Your task to perform on an android device: Open Yahoo.com Image 0: 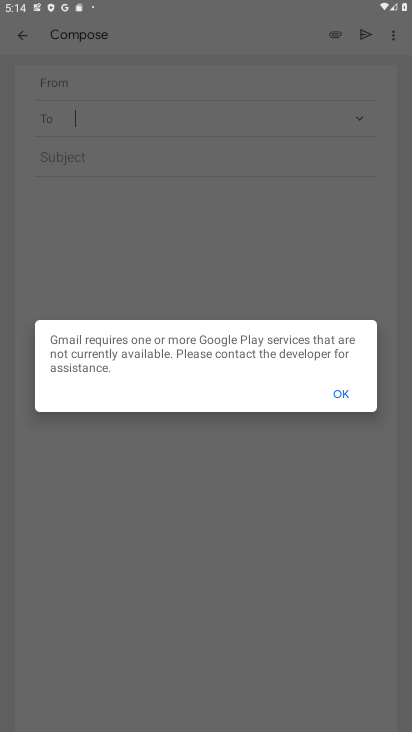
Step 0: drag from (270, 677) to (243, 279)
Your task to perform on an android device: Open Yahoo.com Image 1: 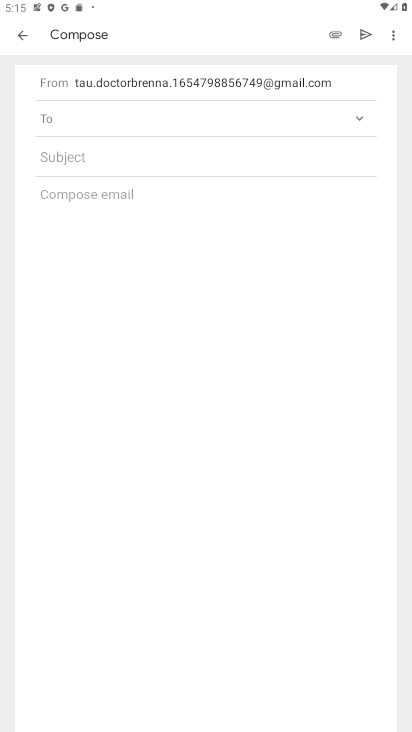
Step 1: click (341, 398)
Your task to perform on an android device: Open Yahoo.com Image 2: 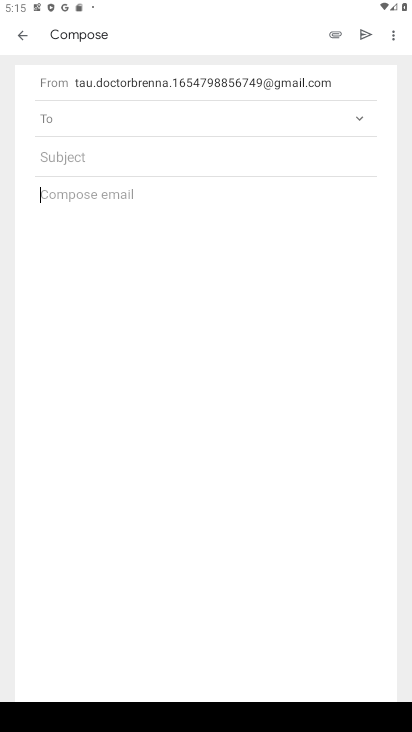
Step 2: click (20, 33)
Your task to perform on an android device: Open Yahoo.com Image 3: 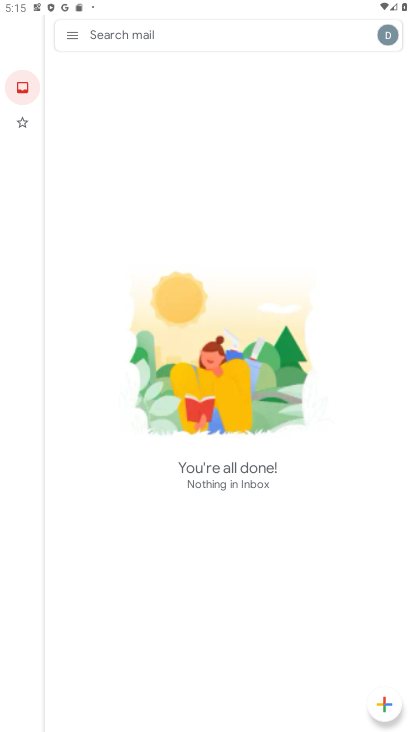
Step 3: press back button
Your task to perform on an android device: Open Yahoo.com Image 4: 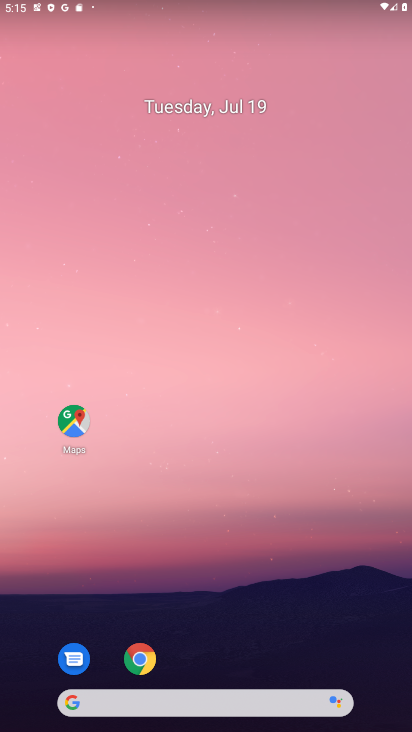
Step 4: click (78, 32)
Your task to perform on an android device: Open Yahoo.com Image 5: 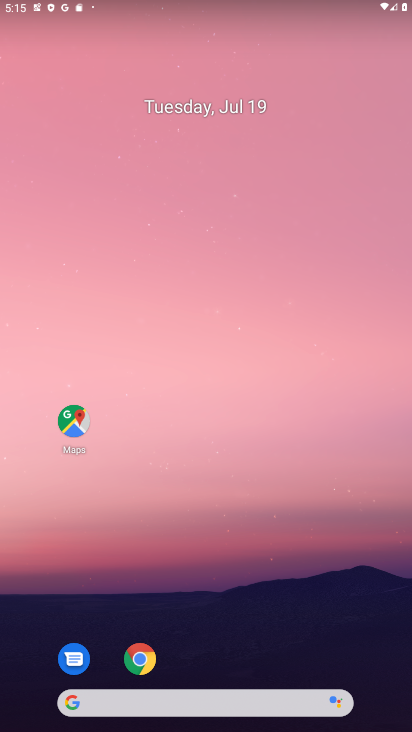
Step 5: drag from (194, 615) to (134, 68)
Your task to perform on an android device: Open Yahoo.com Image 6: 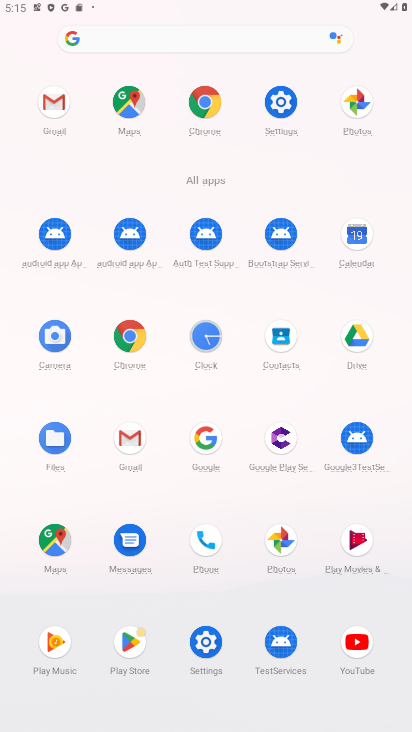
Step 6: click (190, 108)
Your task to perform on an android device: Open Yahoo.com Image 7: 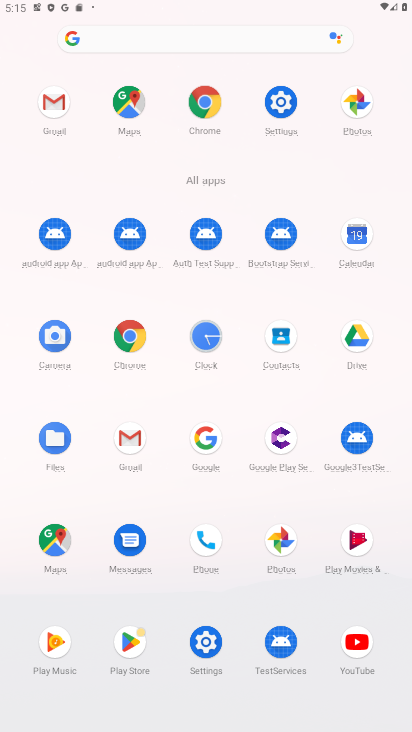
Step 7: click (200, 103)
Your task to perform on an android device: Open Yahoo.com Image 8: 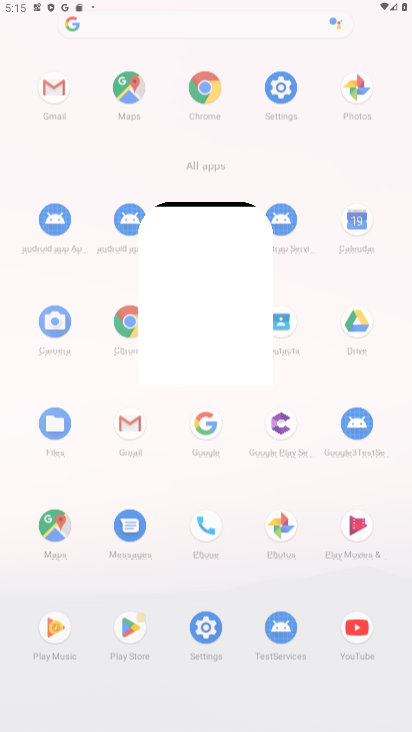
Step 8: click (201, 104)
Your task to perform on an android device: Open Yahoo.com Image 9: 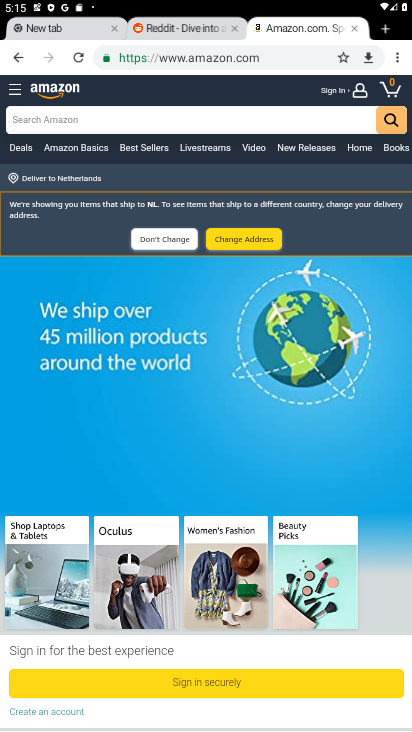
Step 9: drag from (398, 57) to (277, 64)
Your task to perform on an android device: Open Yahoo.com Image 10: 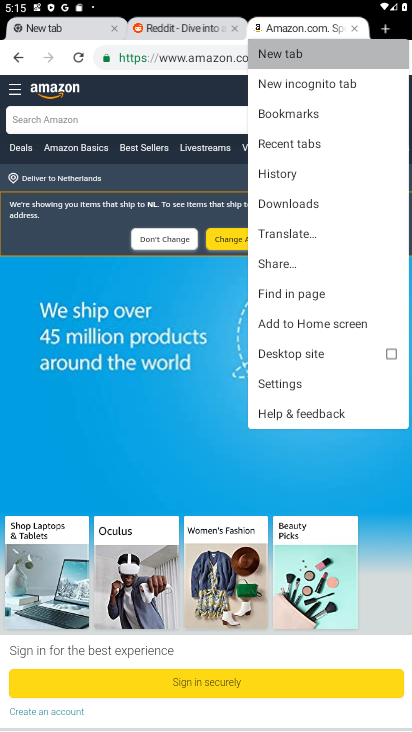
Step 10: click (277, 63)
Your task to perform on an android device: Open Yahoo.com Image 11: 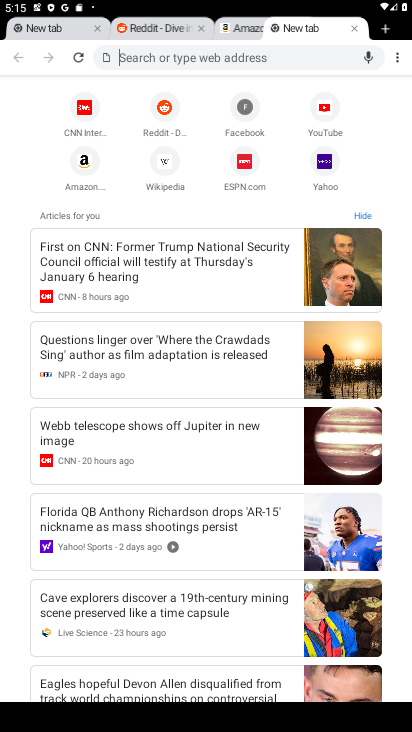
Step 11: click (332, 162)
Your task to perform on an android device: Open Yahoo.com Image 12: 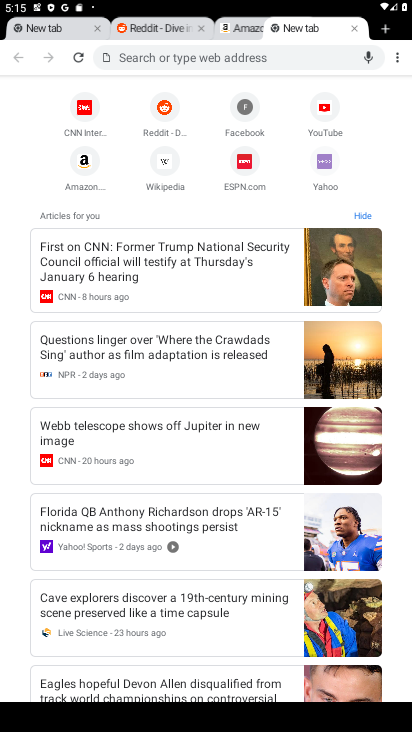
Step 12: click (330, 162)
Your task to perform on an android device: Open Yahoo.com Image 13: 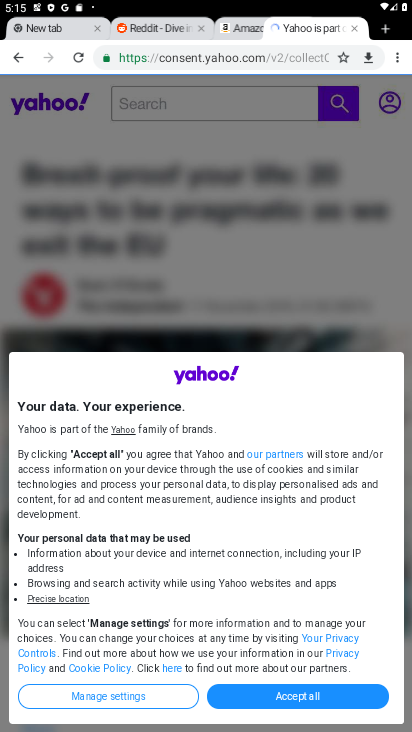
Step 13: task complete